Your task to perform on an android device: Show me popular videos on Youtube Image 0: 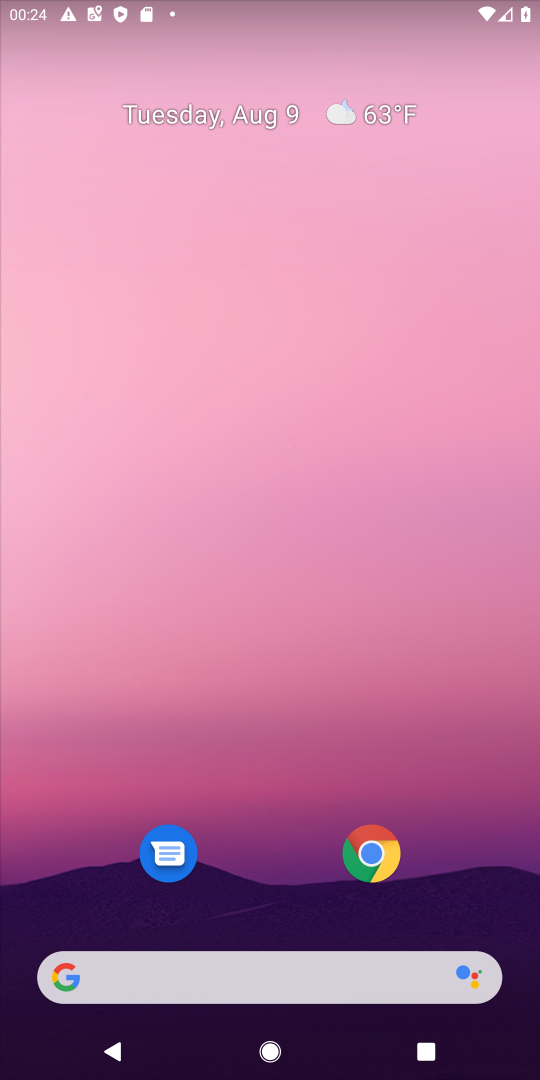
Step 0: drag from (264, 845) to (268, 155)
Your task to perform on an android device: Show me popular videos on Youtube Image 1: 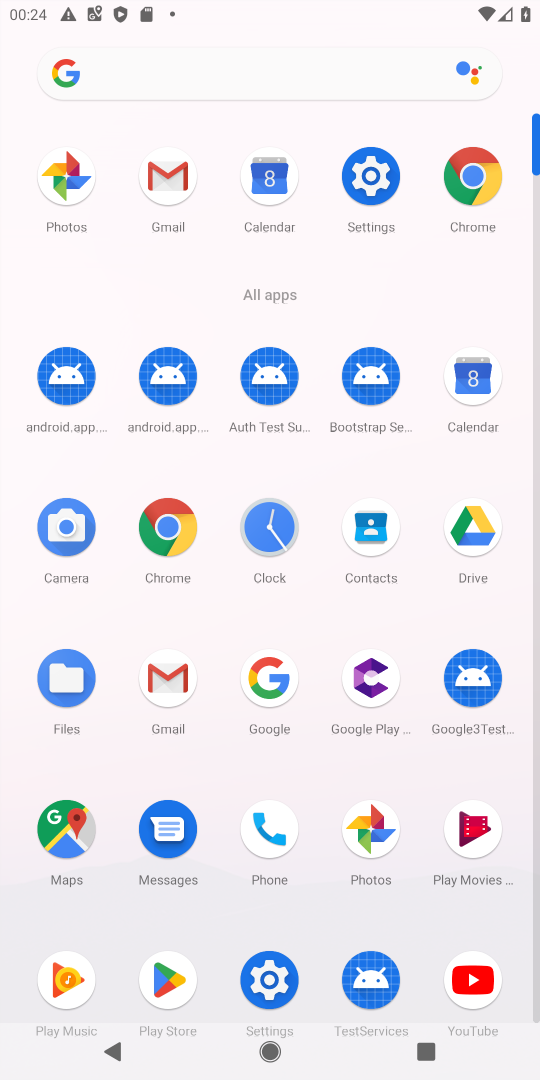
Step 1: click (464, 979)
Your task to perform on an android device: Show me popular videos on Youtube Image 2: 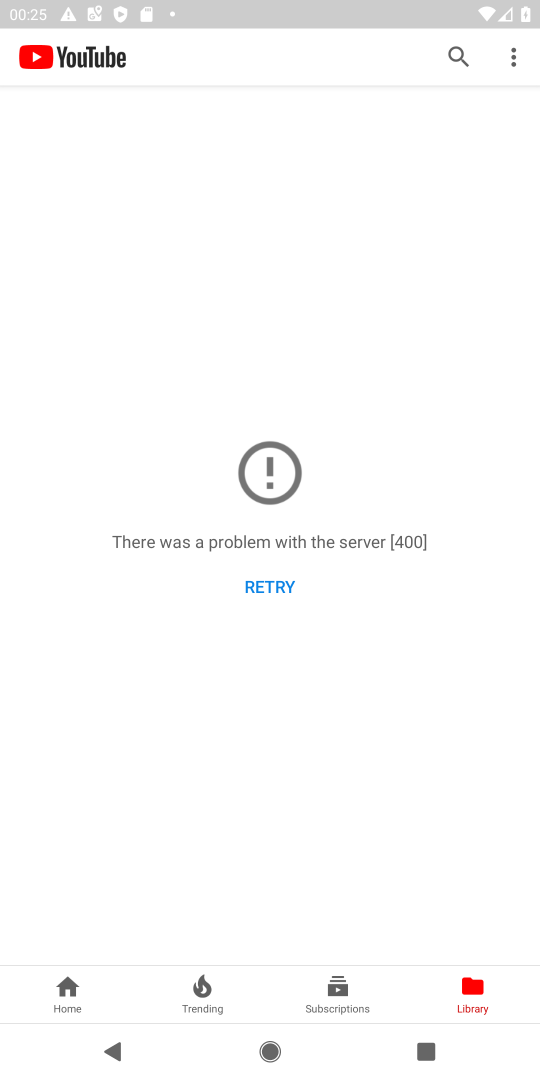
Step 2: click (275, 581)
Your task to perform on an android device: Show me popular videos on Youtube Image 3: 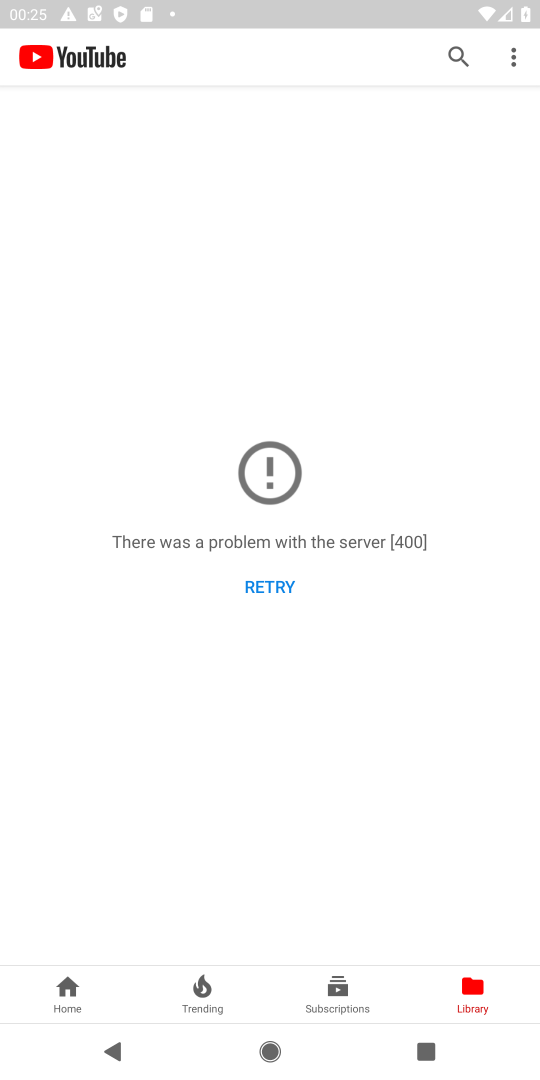
Step 3: click (275, 581)
Your task to perform on an android device: Show me popular videos on Youtube Image 4: 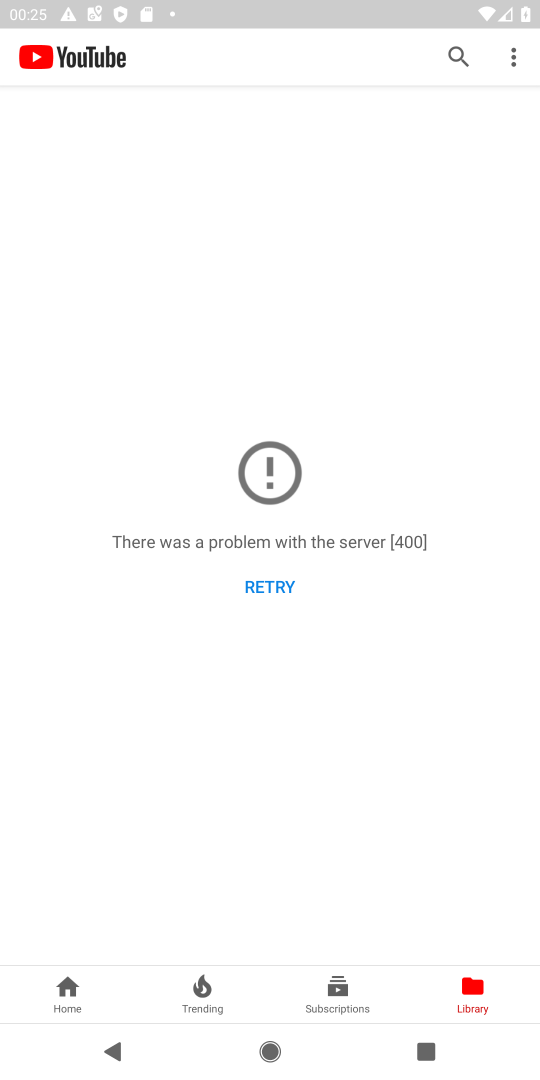
Step 4: task complete